Your task to perform on an android device: Open Chrome and go to settings Image 0: 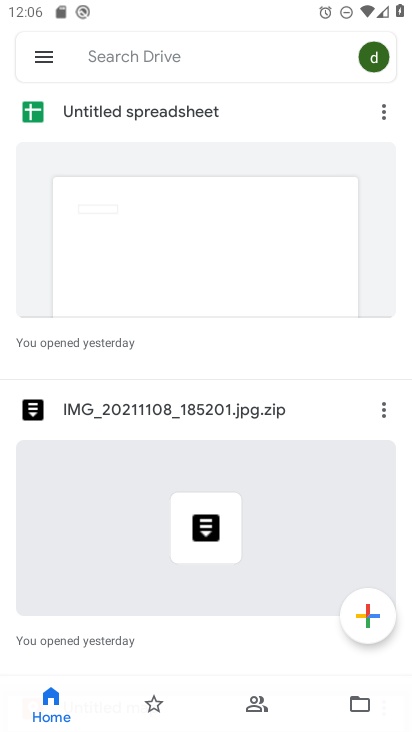
Step 0: press home button
Your task to perform on an android device: Open Chrome and go to settings Image 1: 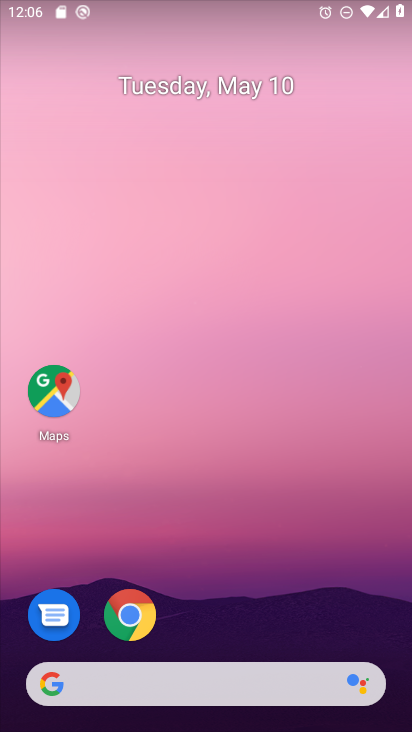
Step 1: drag from (237, 704) to (411, 182)
Your task to perform on an android device: Open Chrome and go to settings Image 2: 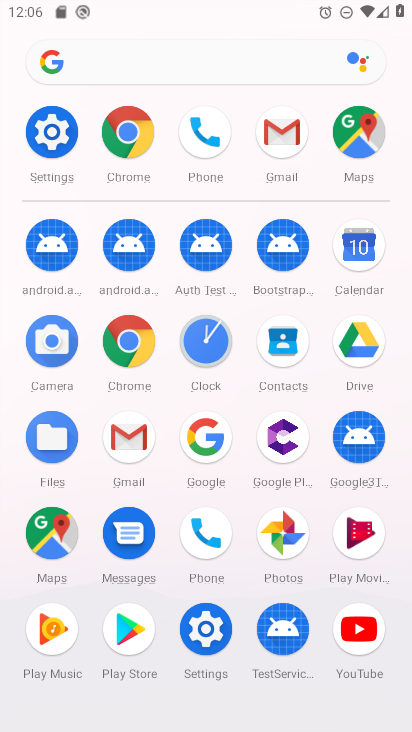
Step 2: click (205, 634)
Your task to perform on an android device: Open Chrome and go to settings Image 3: 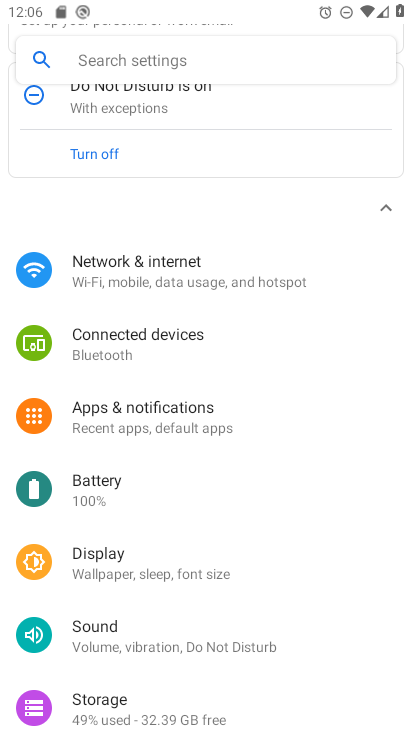
Step 3: press home button
Your task to perform on an android device: Open Chrome and go to settings Image 4: 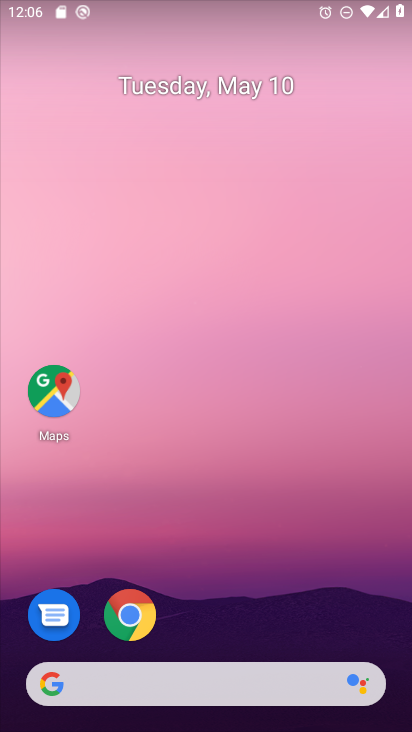
Step 4: drag from (219, 714) to (361, 196)
Your task to perform on an android device: Open Chrome and go to settings Image 5: 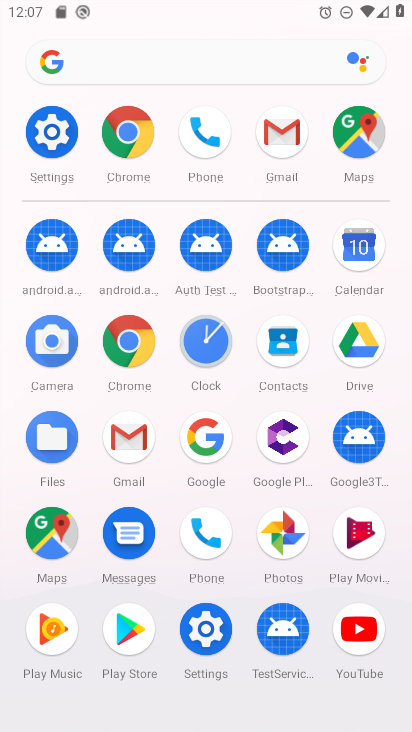
Step 5: click (115, 138)
Your task to perform on an android device: Open Chrome and go to settings Image 6: 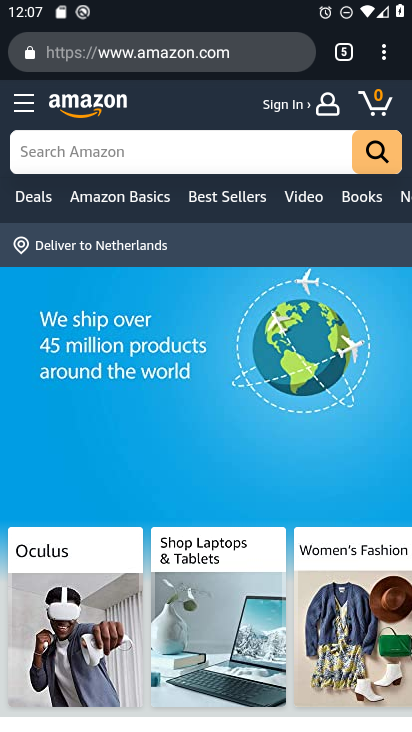
Step 6: click (377, 60)
Your task to perform on an android device: Open Chrome and go to settings Image 7: 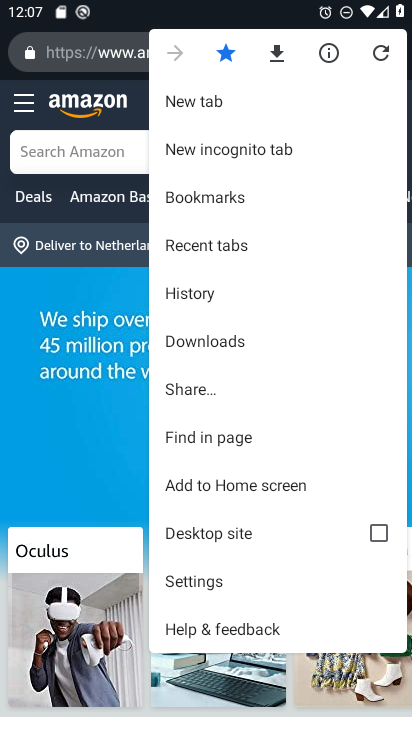
Step 7: click (195, 575)
Your task to perform on an android device: Open Chrome and go to settings Image 8: 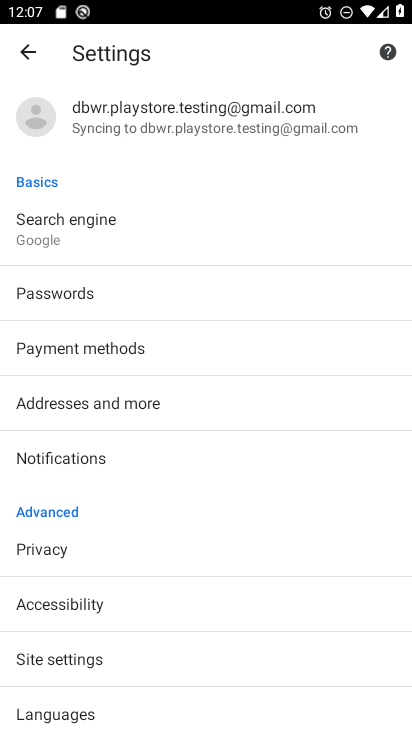
Step 8: task complete